Your task to perform on an android device: Search for "duracell triple a" on ebay.com, select the first entry, add it to the cart, then select checkout. Image 0: 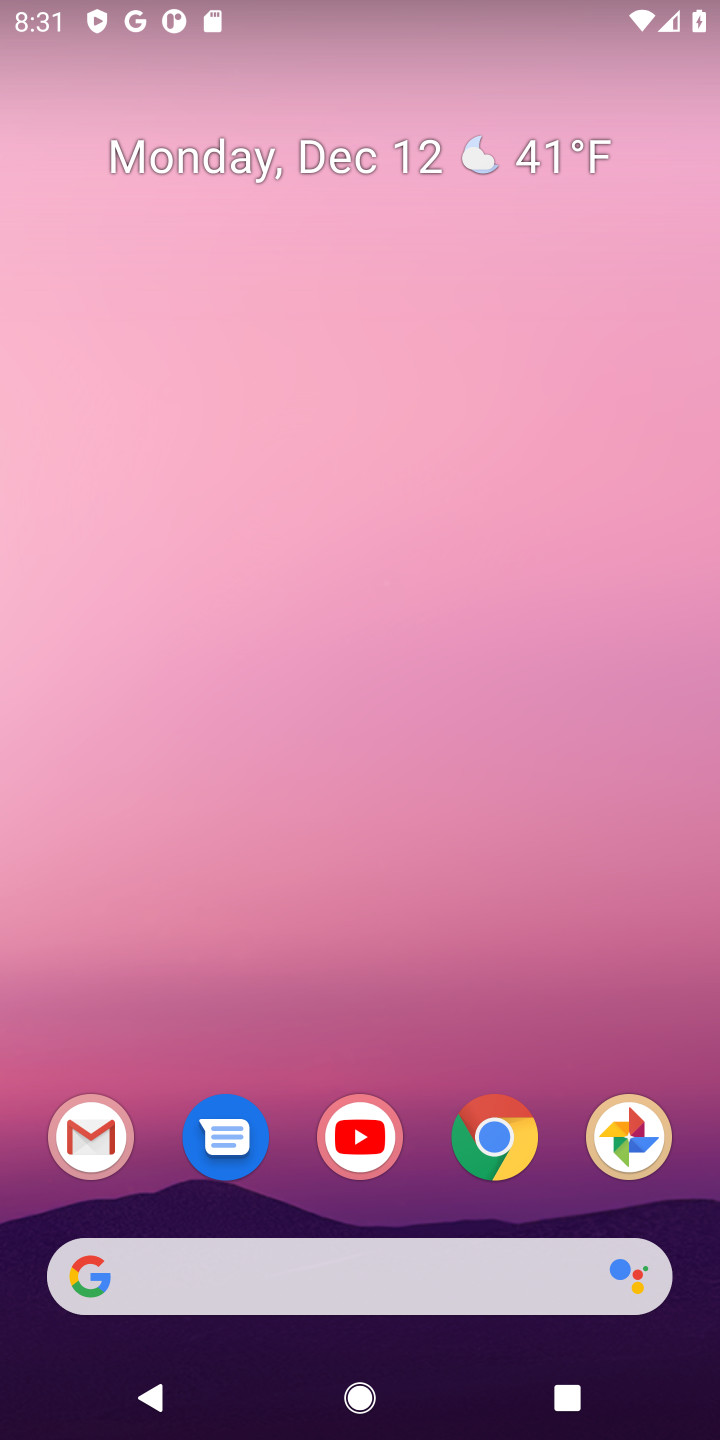
Step 0: click (497, 1109)
Your task to perform on an android device: Search for "duracell triple a" on ebay.com, select the first entry, add it to the cart, then select checkout. Image 1: 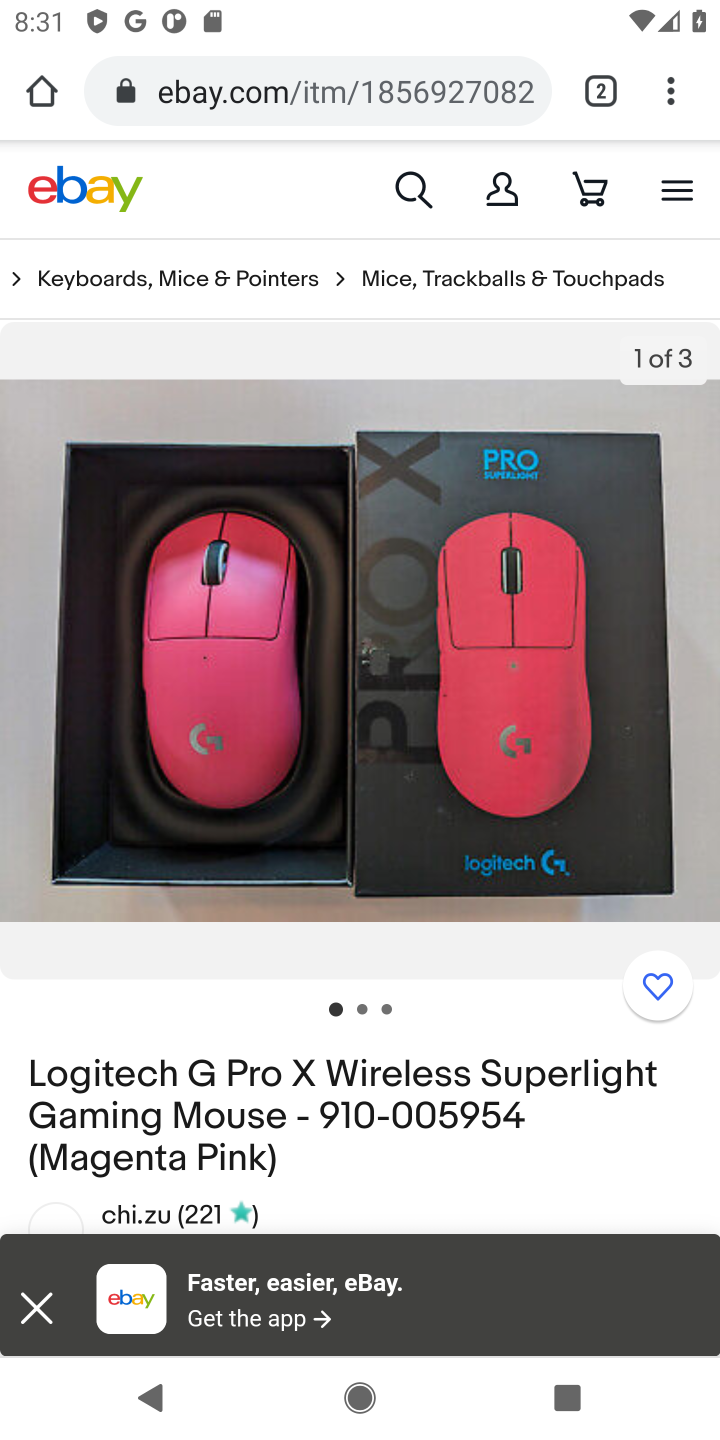
Step 1: click (276, 88)
Your task to perform on an android device: Search for "duracell triple a" on ebay.com, select the first entry, add it to the cart, then select checkout. Image 2: 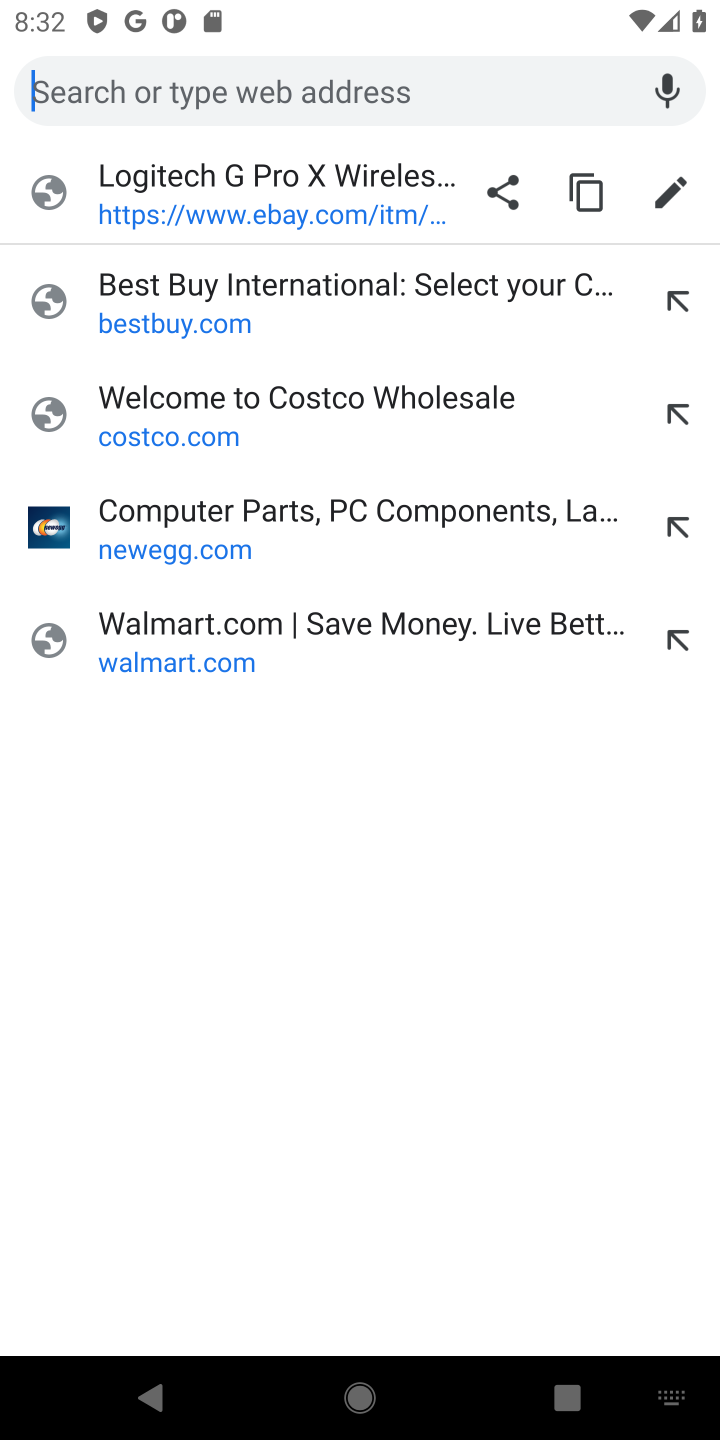
Step 2: click (216, 191)
Your task to perform on an android device: Search for "duracell triple a" on ebay.com, select the first entry, add it to the cart, then select checkout. Image 3: 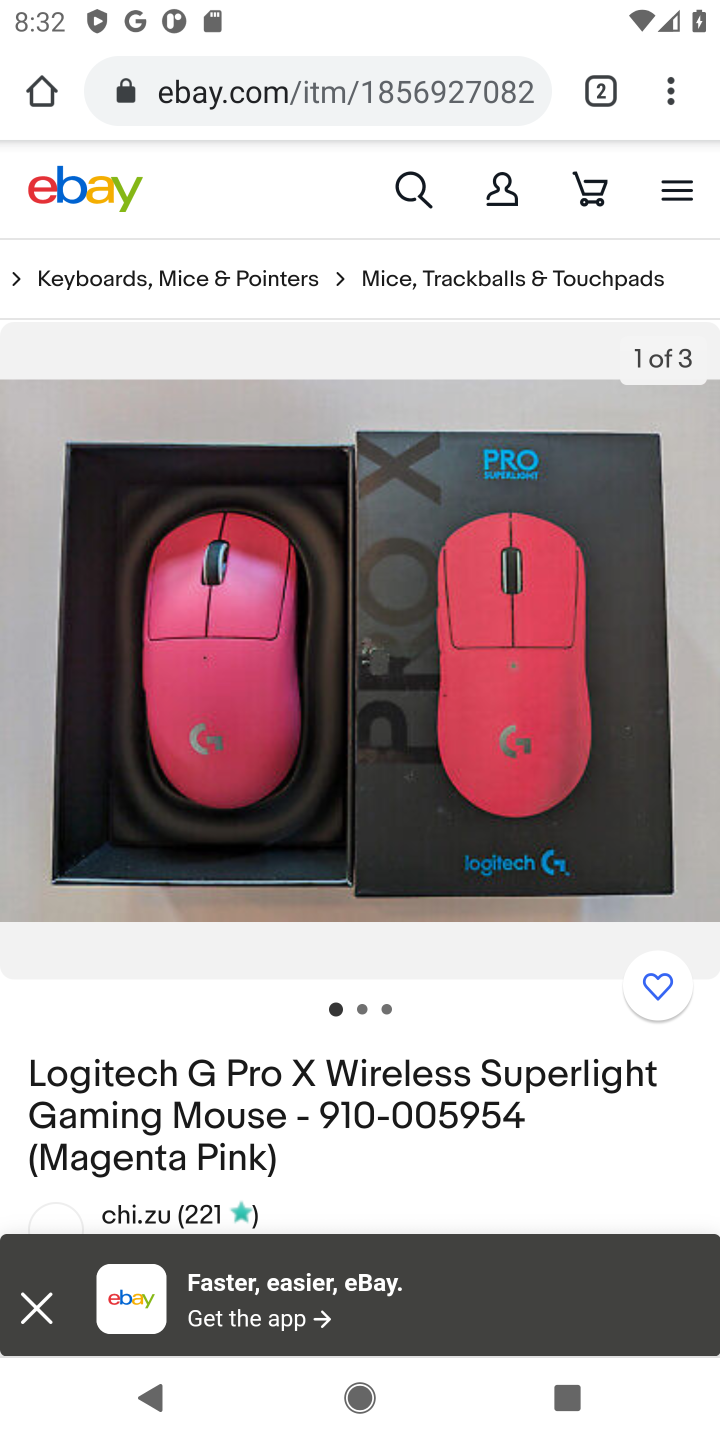
Step 3: click (418, 181)
Your task to perform on an android device: Search for "duracell triple a" on ebay.com, select the first entry, add it to the cart, then select checkout. Image 4: 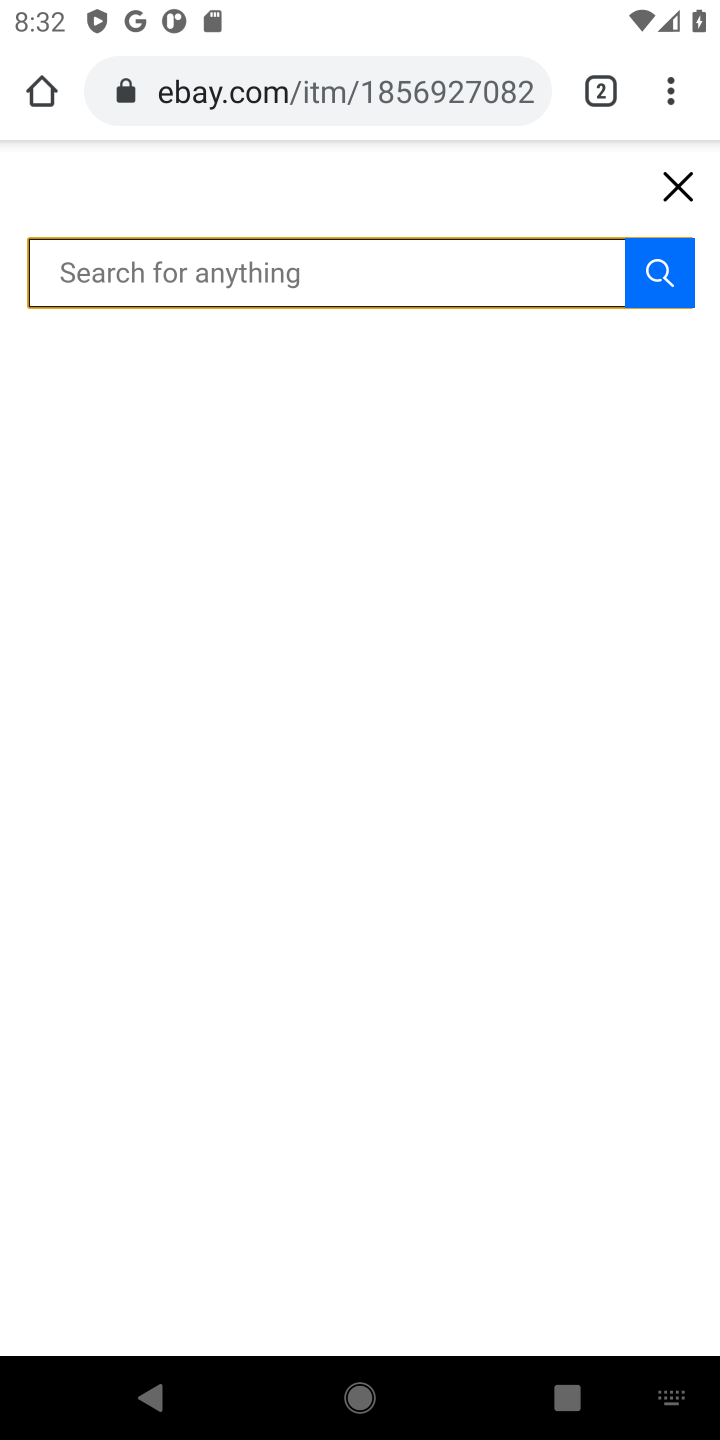
Step 4: type "duracell triple a"
Your task to perform on an android device: Search for "duracell triple a" on ebay.com, select the first entry, add it to the cart, then select checkout. Image 5: 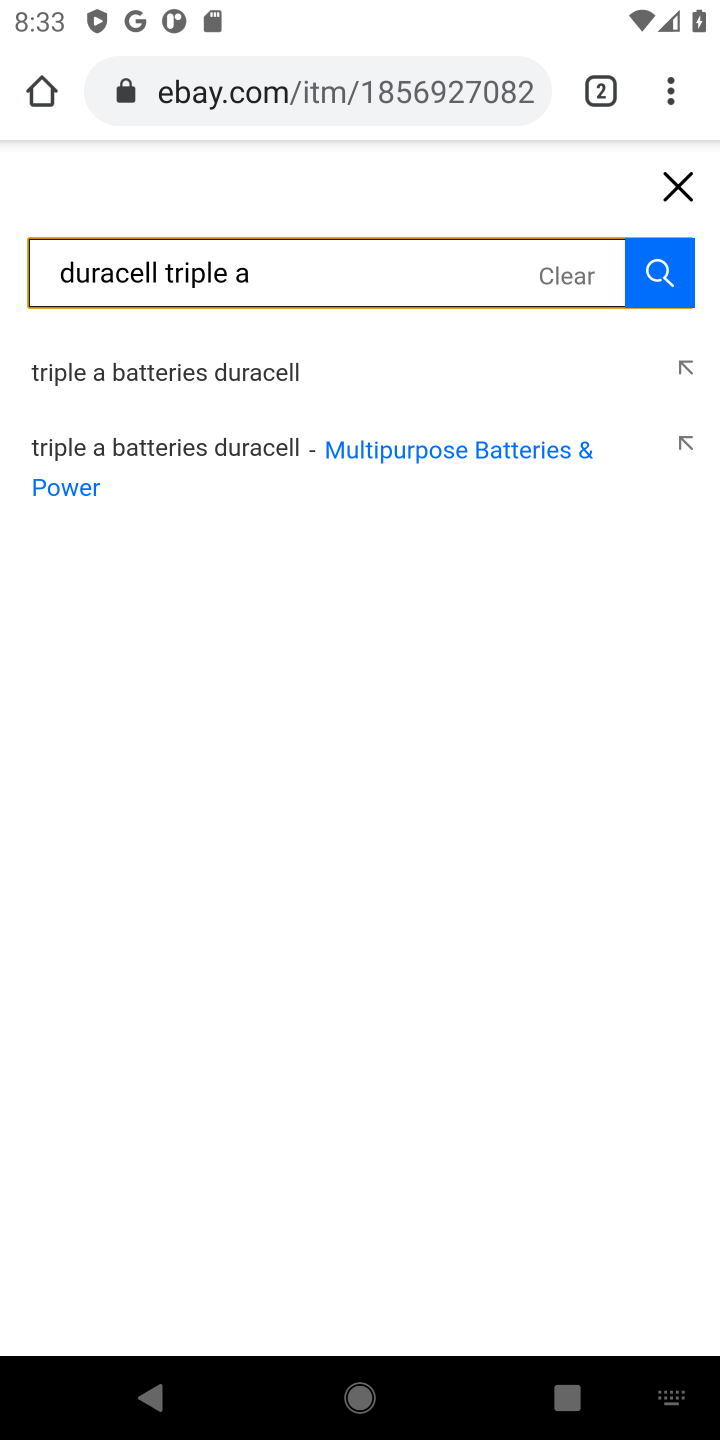
Step 5: click (252, 369)
Your task to perform on an android device: Search for "duracell triple a" on ebay.com, select the first entry, add it to the cart, then select checkout. Image 6: 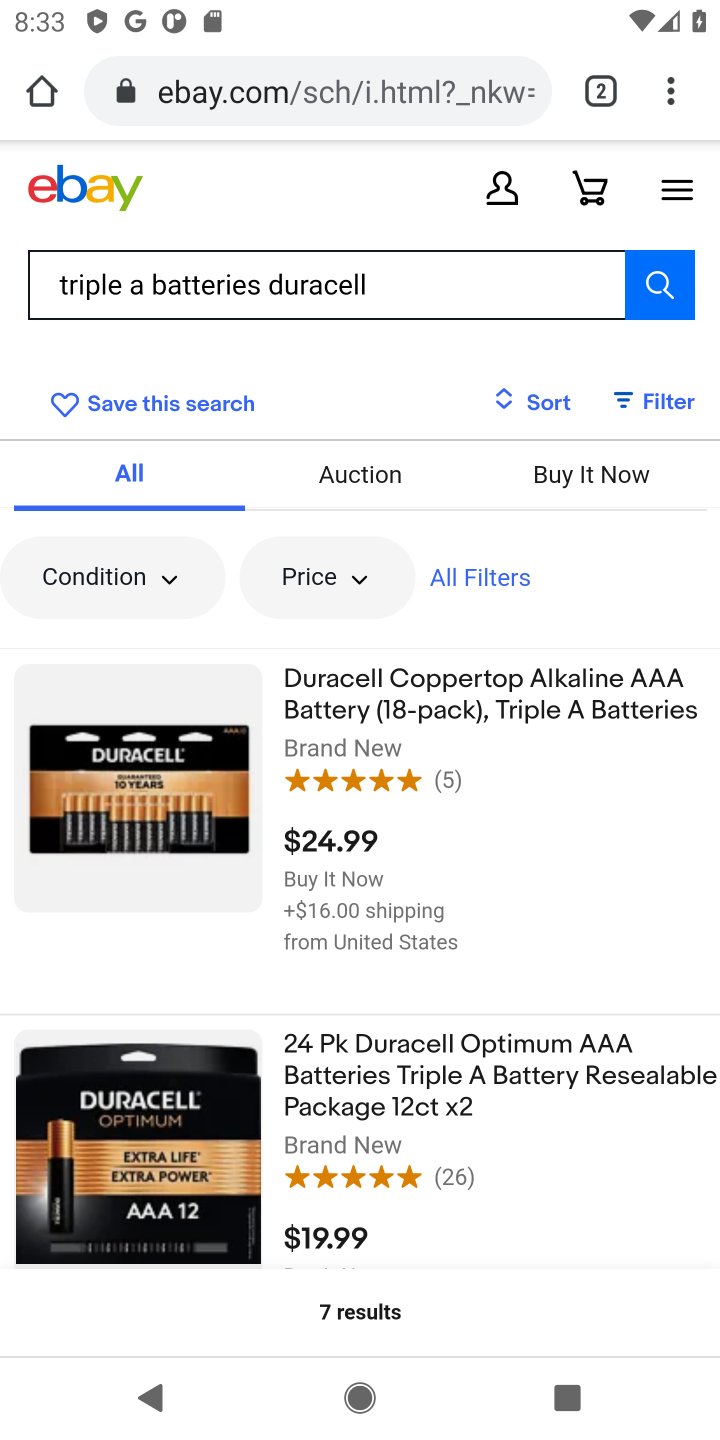
Step 6: click (517, 838)
Your task to perform on an android device: Search for "duracell triple a" on ebay.com, select the first entry, add it to the cart, then select checkout. Image 7: 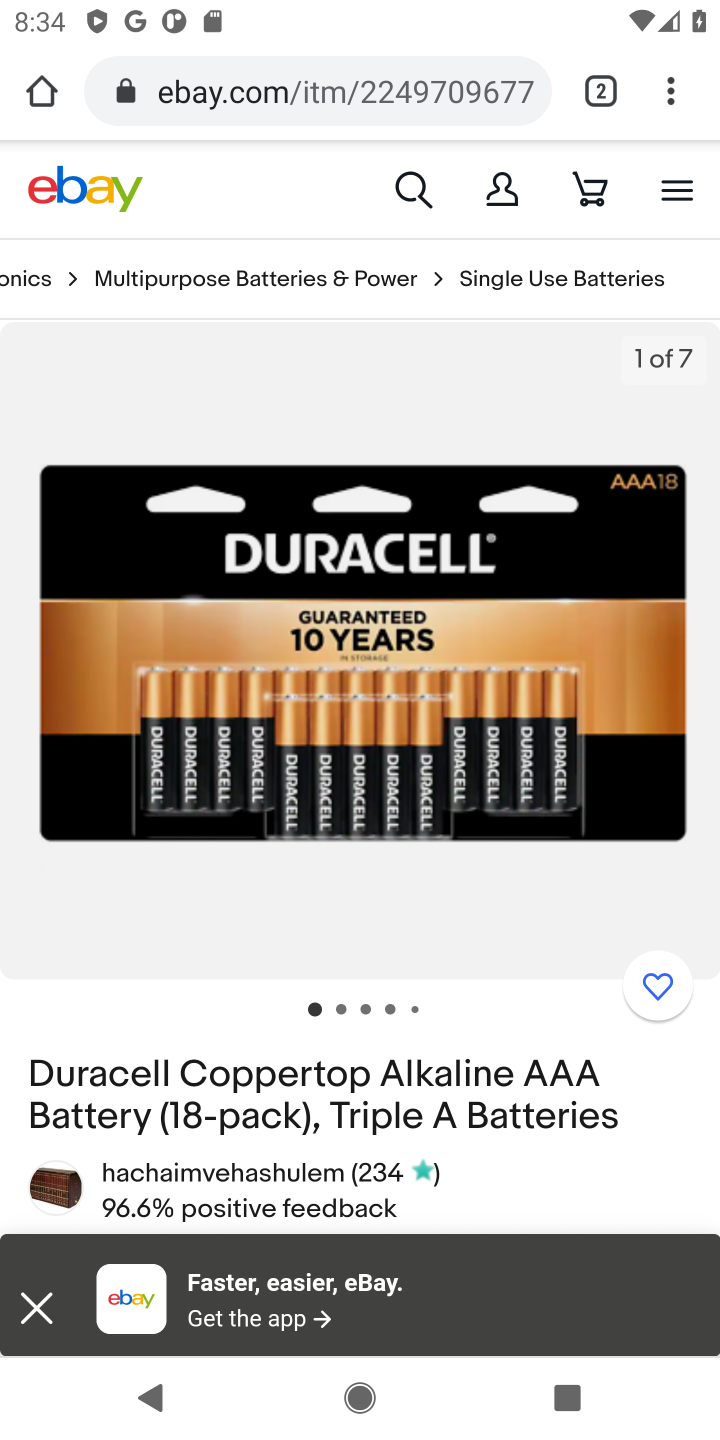
Step 7: drag from (522, 1182) to (441, 302)
Your task to perform on an android device: Search for "duracell triple a" on ebay.com, select the first entry, add it to the cart, then select checkout. Image 8: 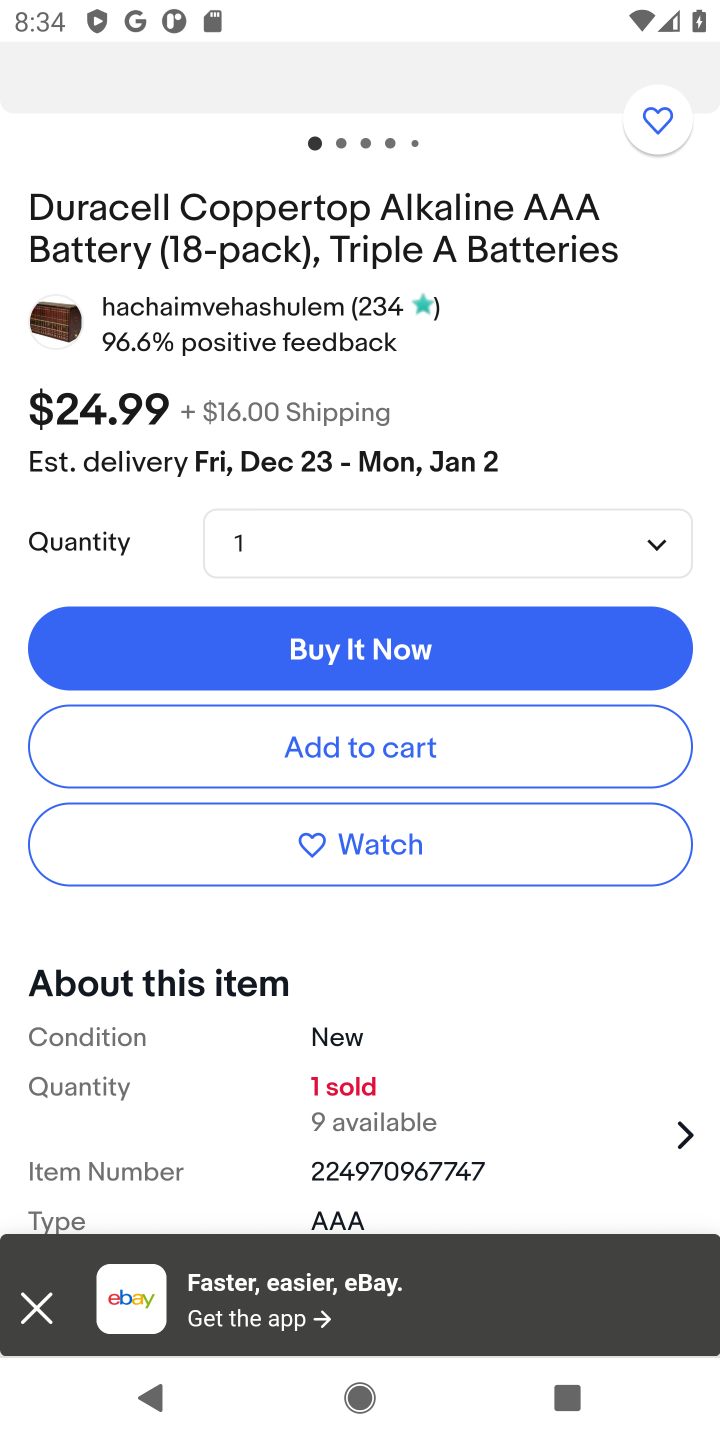
Step 8: click (370, 759)
Your task to perform on an android device: Search for "duracell triple a" on ebay.com, select the first entry, add it to the cart, then select checkout. Image 9: 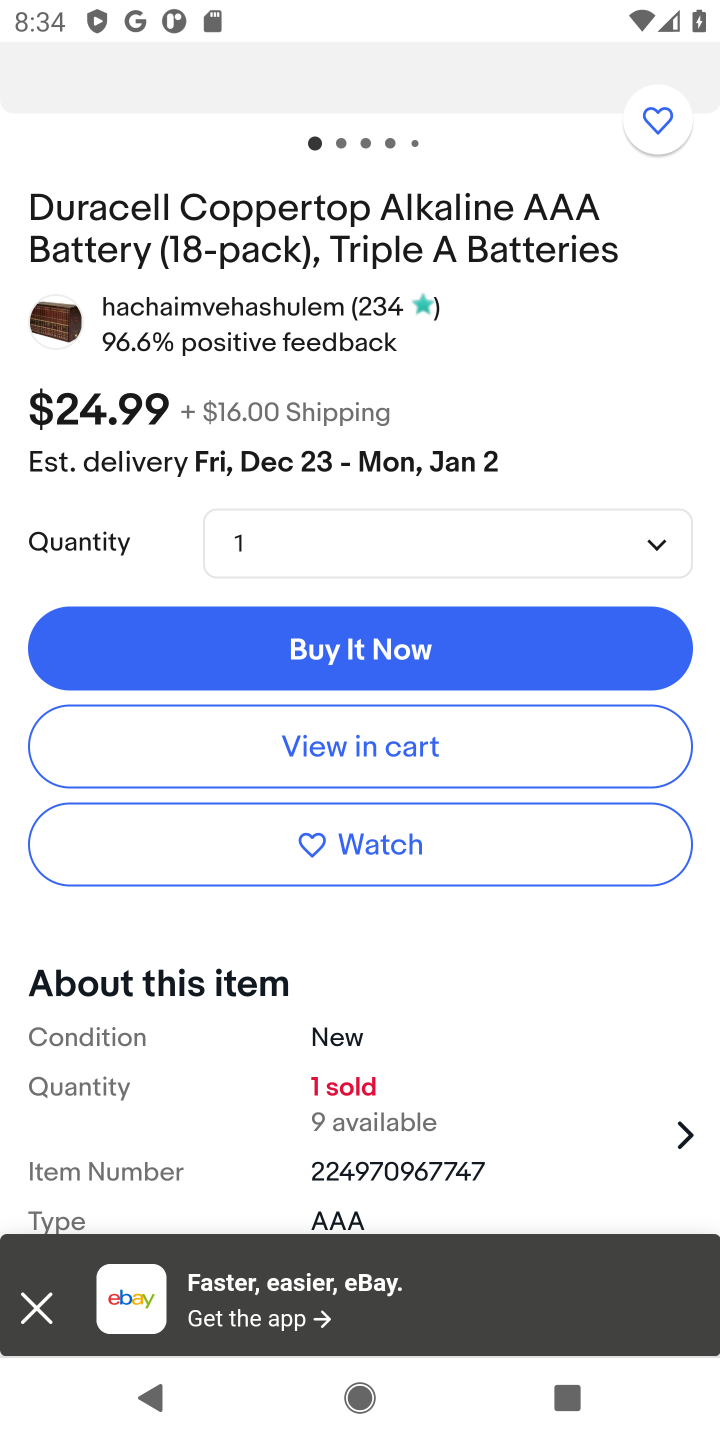
Step 9: click (370, 759)
Your task to perform on an android device: Search for "duracell triple a" on ebay.com, select the first entry, add it to the cart, then select checkout. Image 10: 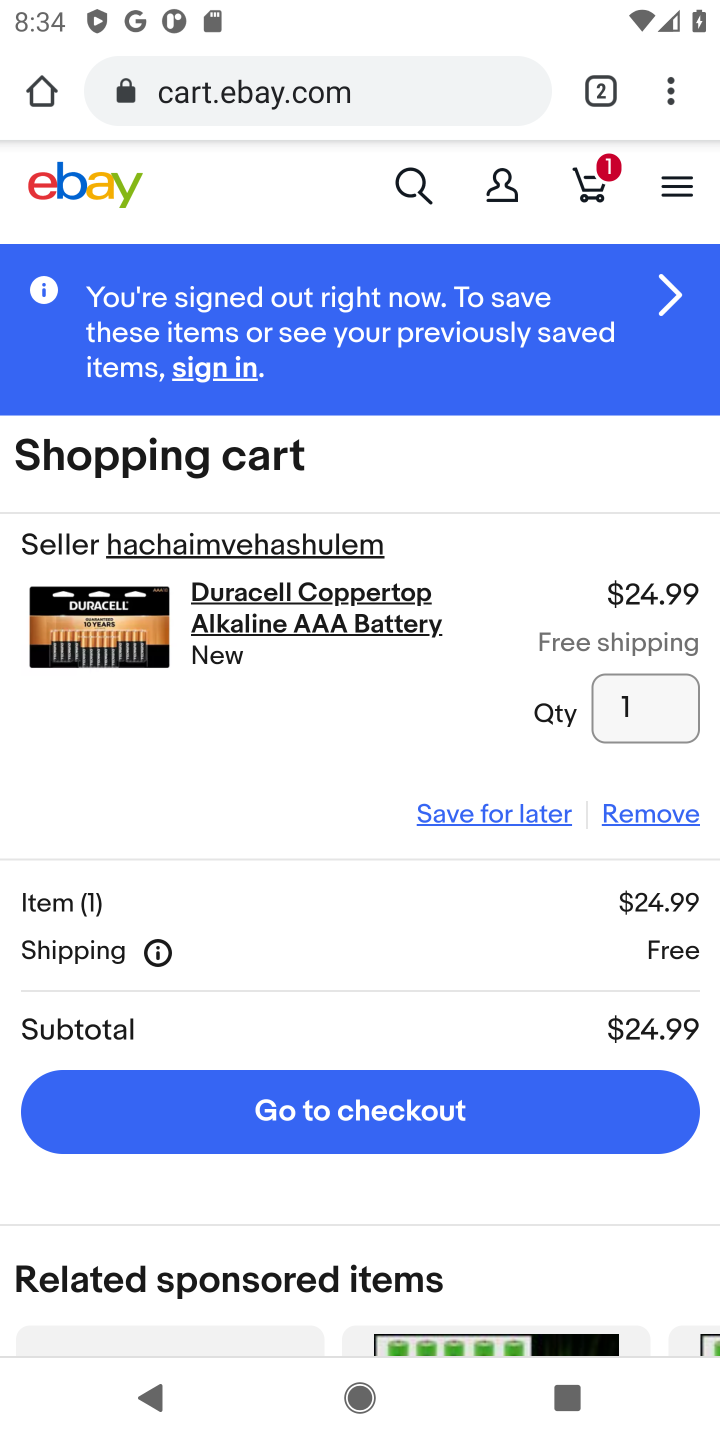
Step 10: click (355, 1113)
Your task to perform on an android device: Search for "duracell triple a" on ebay.com, select the first entry, add it to the cart, then select checkout. Image 11: 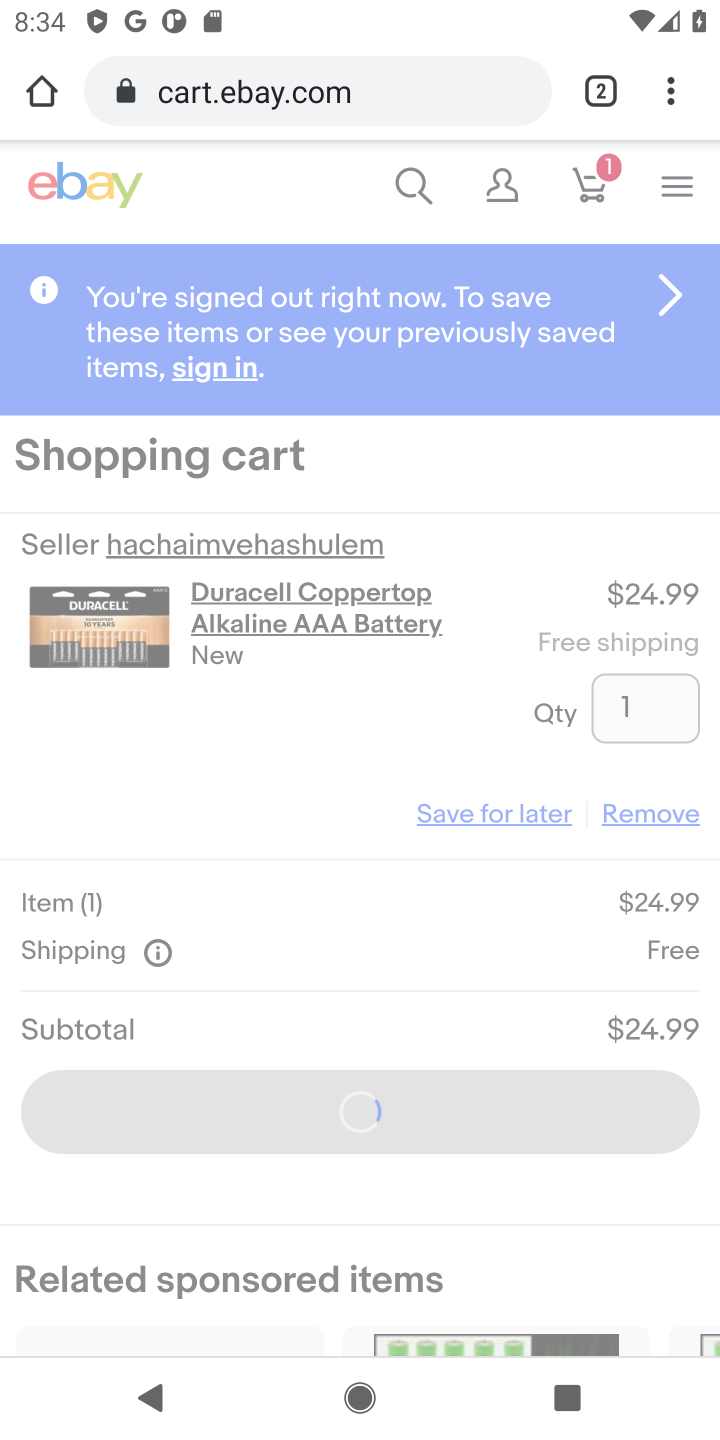
Step 11: task complete